Your task to perform on an android device: Do I have any events this weekend? Image 0: 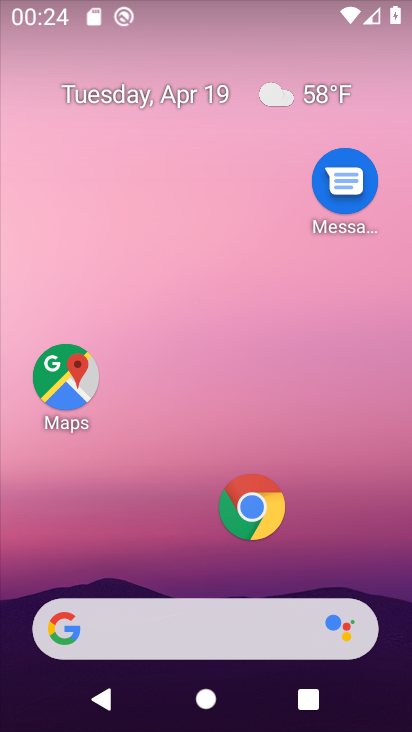
Step 0: drag from (193, 556) to (259, 167)
Your task to perform on an android device: Do I have any events this weekend? Image 1: 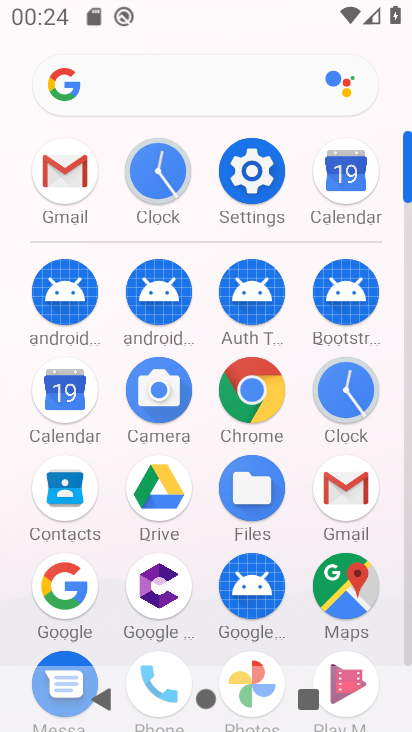
Step 1: click (72, 408)
Your task to perform on an android device: Do I have any events this weekend? Image 2: 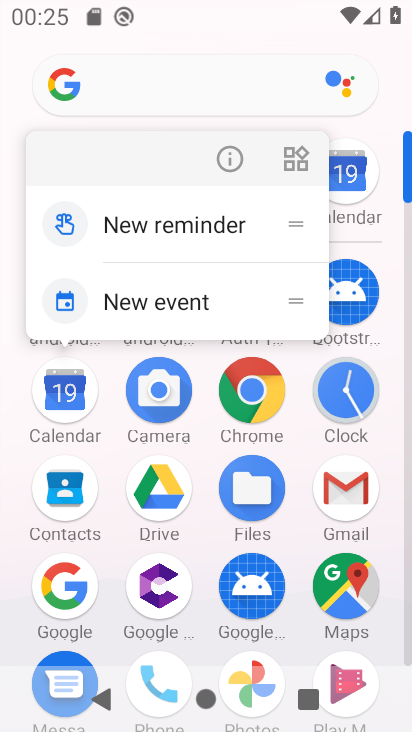
Step 2: click (61, 381)
Your task to perform on an android device: Do I have any events this weekend? Image 3: 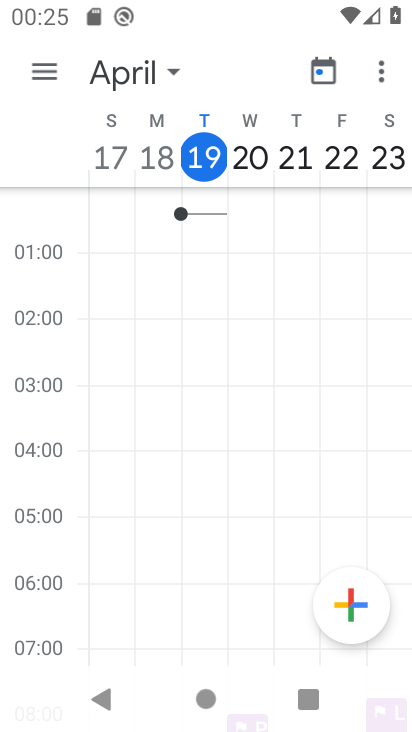
Step 3: click (42, 65)
Your task to perform on an android device: Do I have any events this weekend? Image 4: 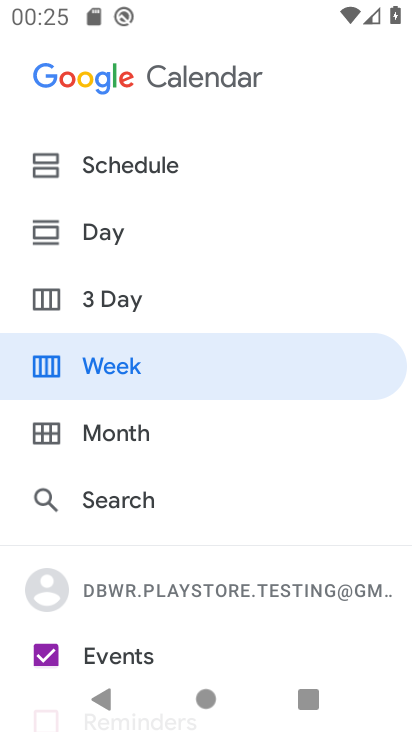
Step 4: drag from (119, 586) to (143, 273)
Your task to perform on an android device: Do I have any events this weekend? Image 5: 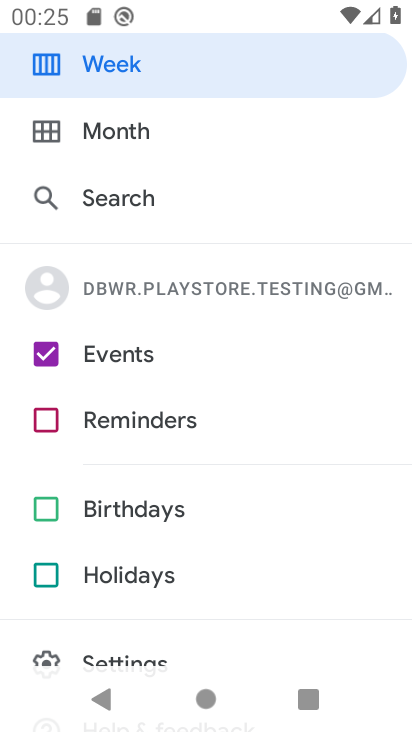
Step 5: click (129, 57)
Your task to perform on an android device: Do I have any events this weekend? Image 6: 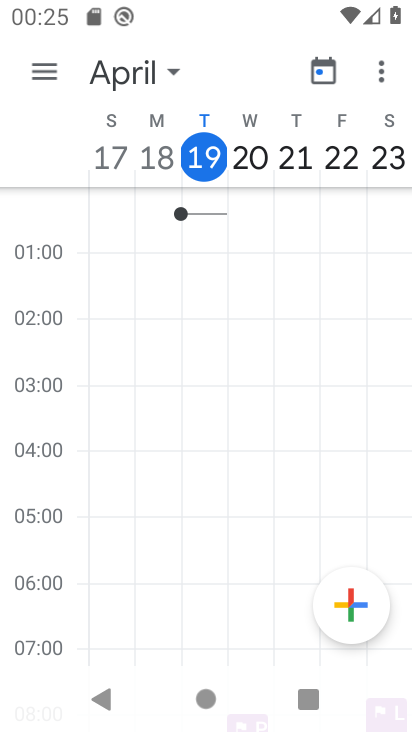
Step 6: task complete